Your task to perform on an android device: Is it going to rain tomorrow? Image 0: 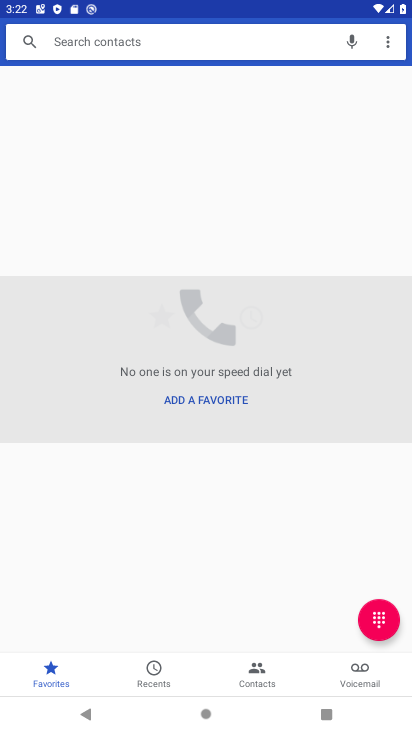
Step 0: press home button
Your task to perform on an android device: Is it going to rain tomorrow? Image 1: 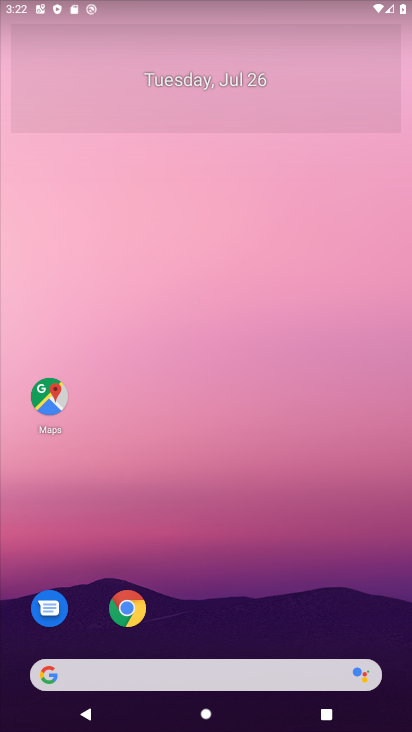
Step 1: drag from (299, 730) to (216, 514)
Your task to perform on an android device: Is it going to rain tomorrow? Image 2: 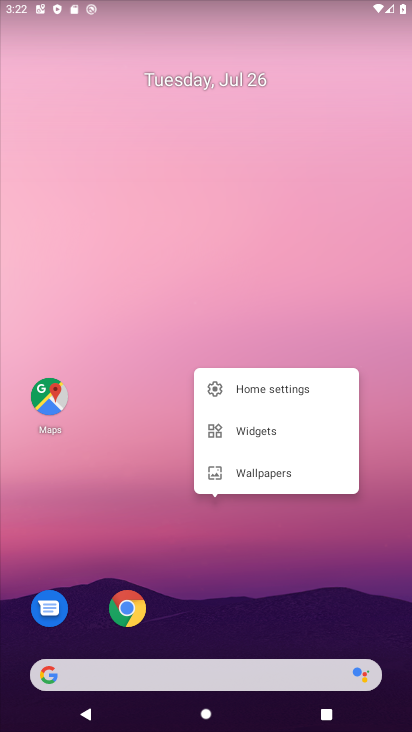
Step 2: click (208, 666)
Your task to perform on an android device: Is it going to rain tomorrow? Image 3: 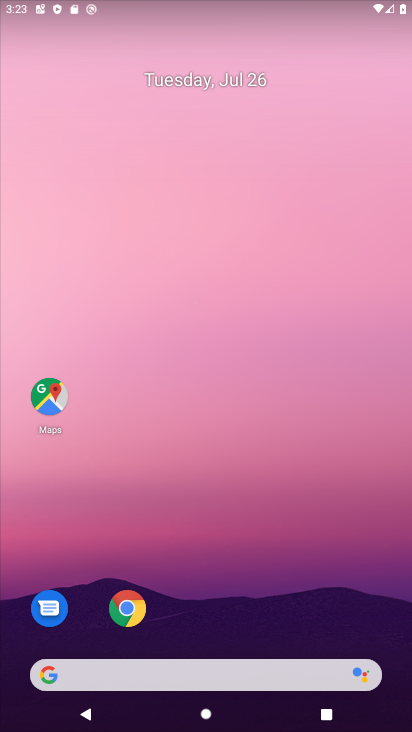
Step 3: click (192, 672)
Your task to perform on an android device: Is it going to rain tomorrow? Image 4: 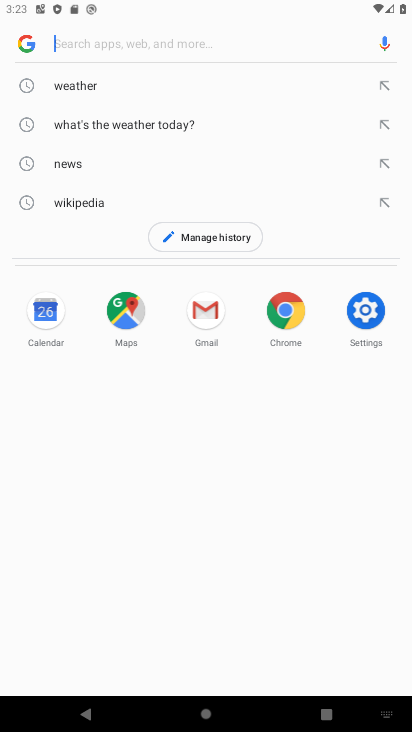
Step 4: type "Is it going to rain tomorrow?"
Your task to perform on an android device: Is it going to rain tomorrow? Image 5: 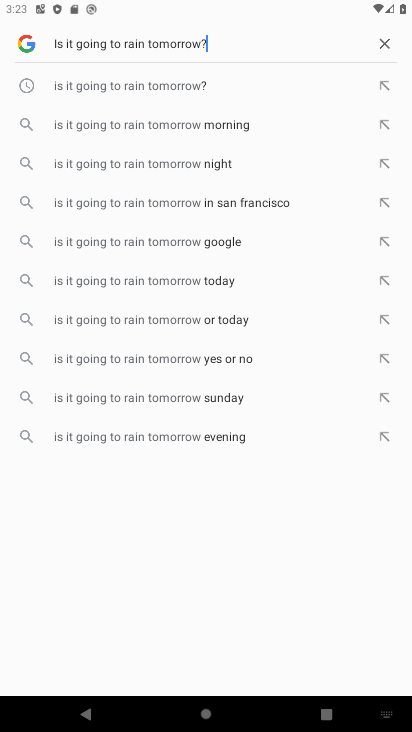
Step 5: press enter
Your task to perform on an android device: Is it going to rain tomorrow? Image 6: 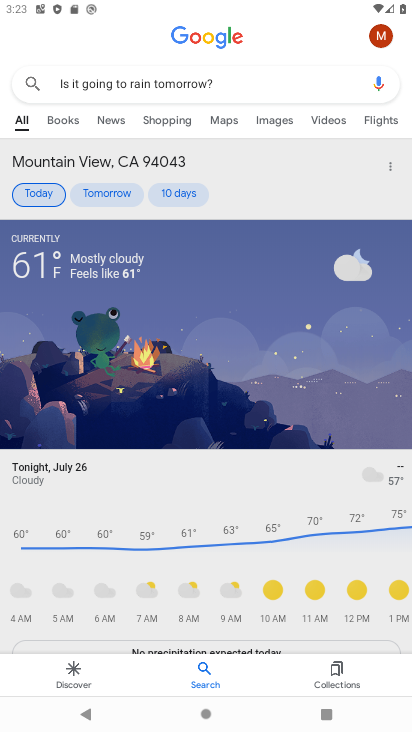
Step 6: task complete